Your task to perform on an android device: find which apps use the phone's location Image 0: 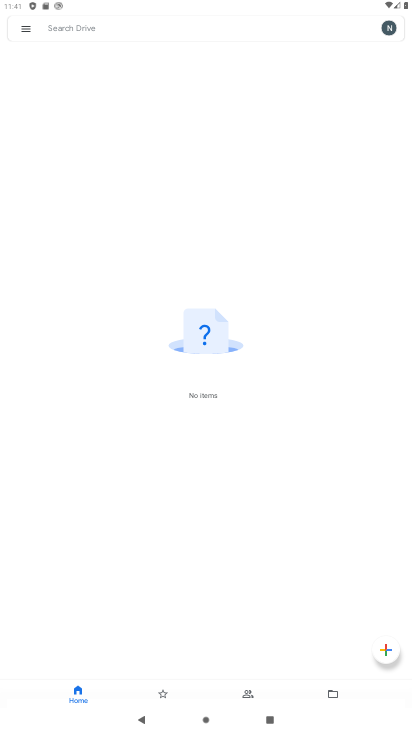
Step 0: press home button
Your task to perform on an android device: find which apps use the phone's location Image 1: 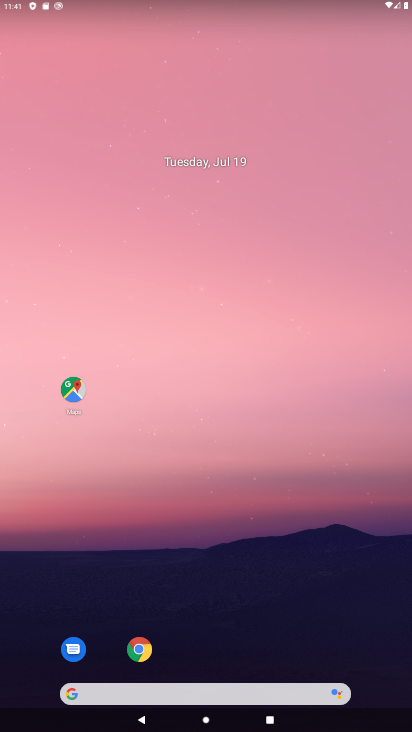
Step 1: drag from (184, 658) to (218, 130)
Your task to perform on an android device: find which apps use the phone's location Image 2: 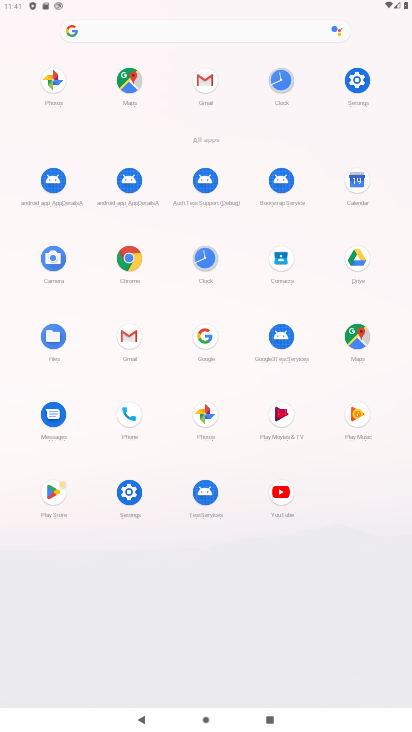
Step 2: click (359, 83)
Your task to perform on an android device: find which apps use the phone's location Image 3: 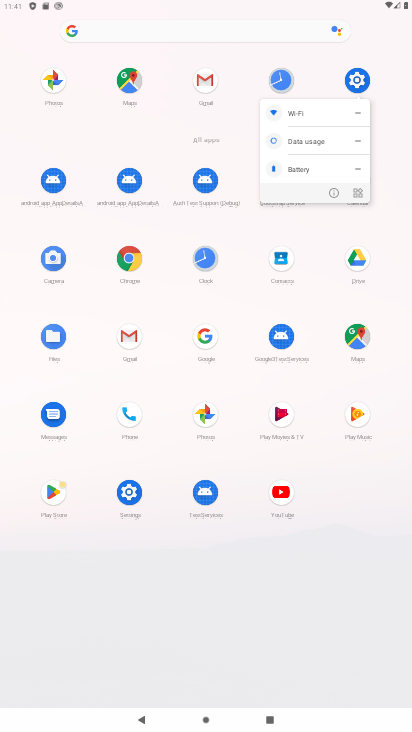
Step 3: click (328, 193)
Your task to perform on an android device: find which apps use the phone's location Image 4: 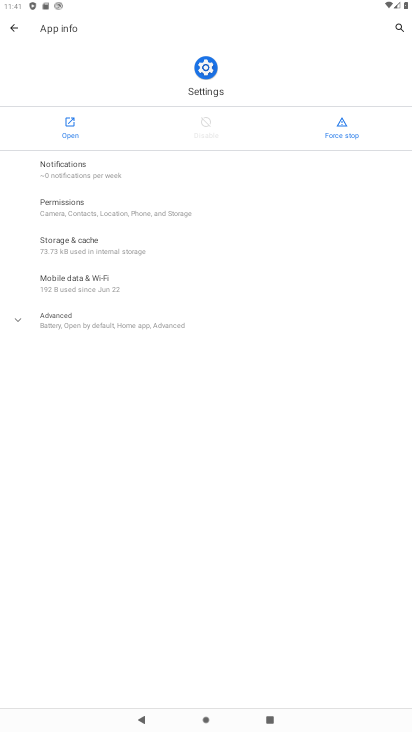
Step 4: click (74, 121)
Your task to perform on an android device: find which apps use the phone's location Image 5: 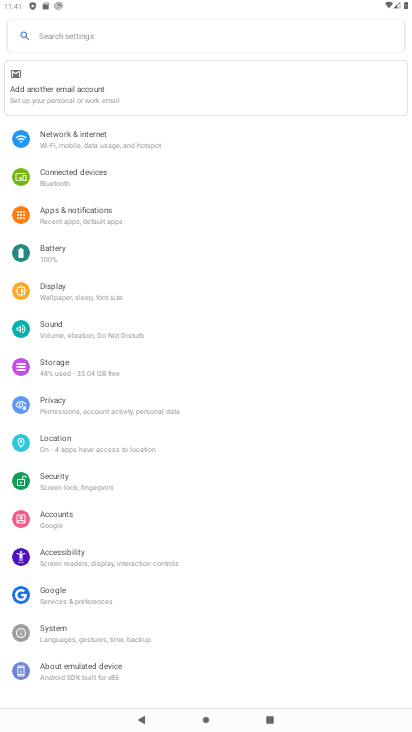
Step 5: click (91, 447)
Your task to perform on an android device: find which apps use the phone's location Image 6: 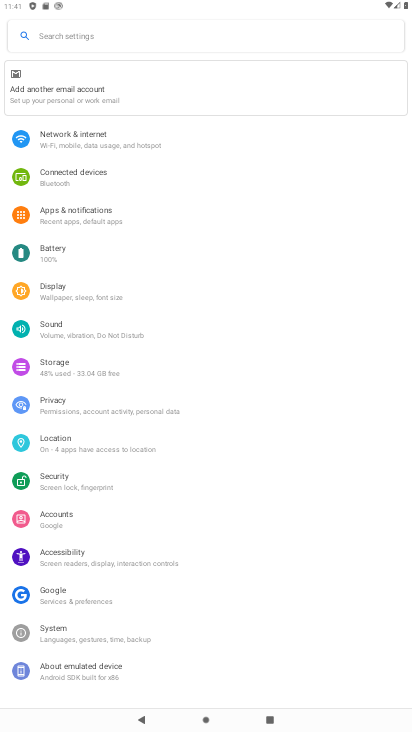
Step 6: click (91, 447)
Your task to perform on an android device: find which apps use the phone's location Image 7: 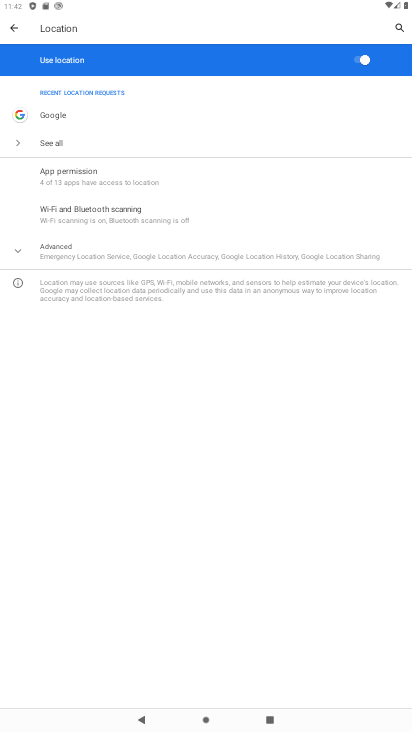
Step 7: click (106, 178)
Your task to perform on an android device: find which apps use the phone's location Image 8: 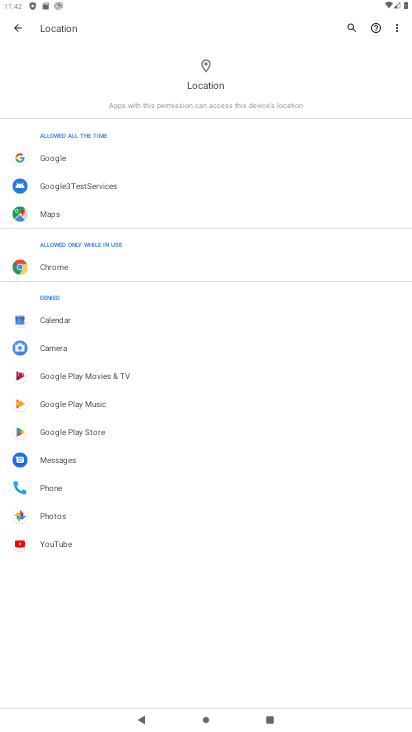
Step 8: task complete